Your task to perform on an android device: Open the calendar app, open the side menu, and click the "Day" option Image 0: 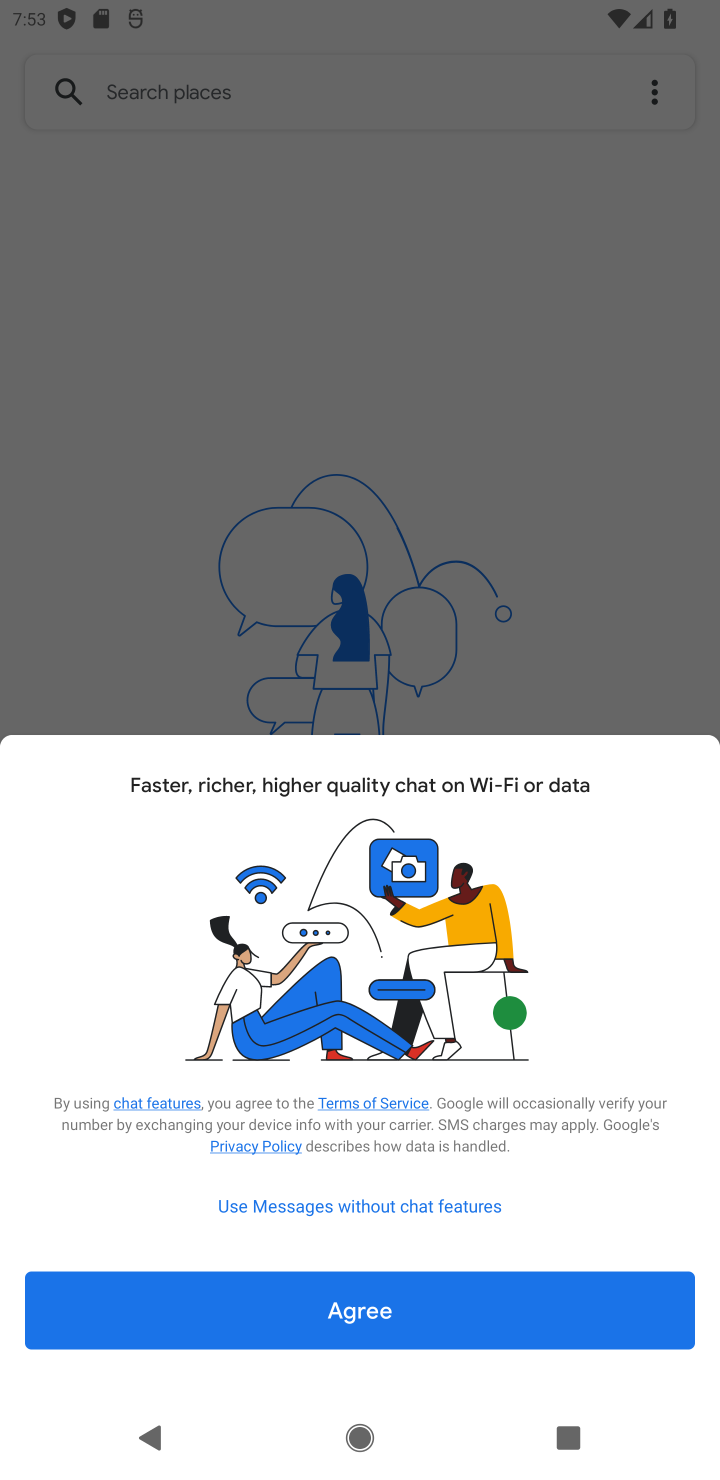
Step 0: press home button
Your task to perform on an android device: Open the calendar app, open the side menu, and click the "Day" option Image 1: 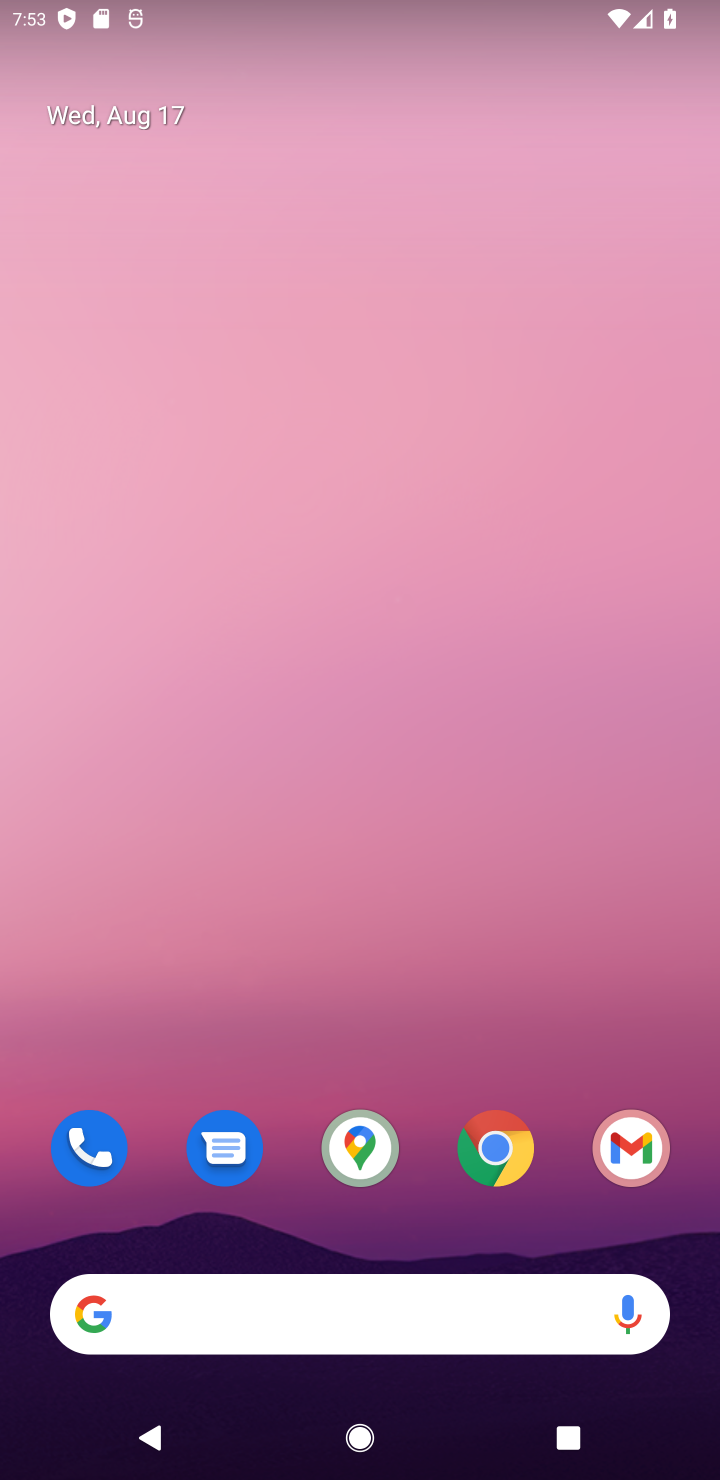
Step 1: drag from (394, 1218) to (389, 203)
Your task to perform on an android device: Open the calendar app, open the side menu, and click the "Day" option Image 2: 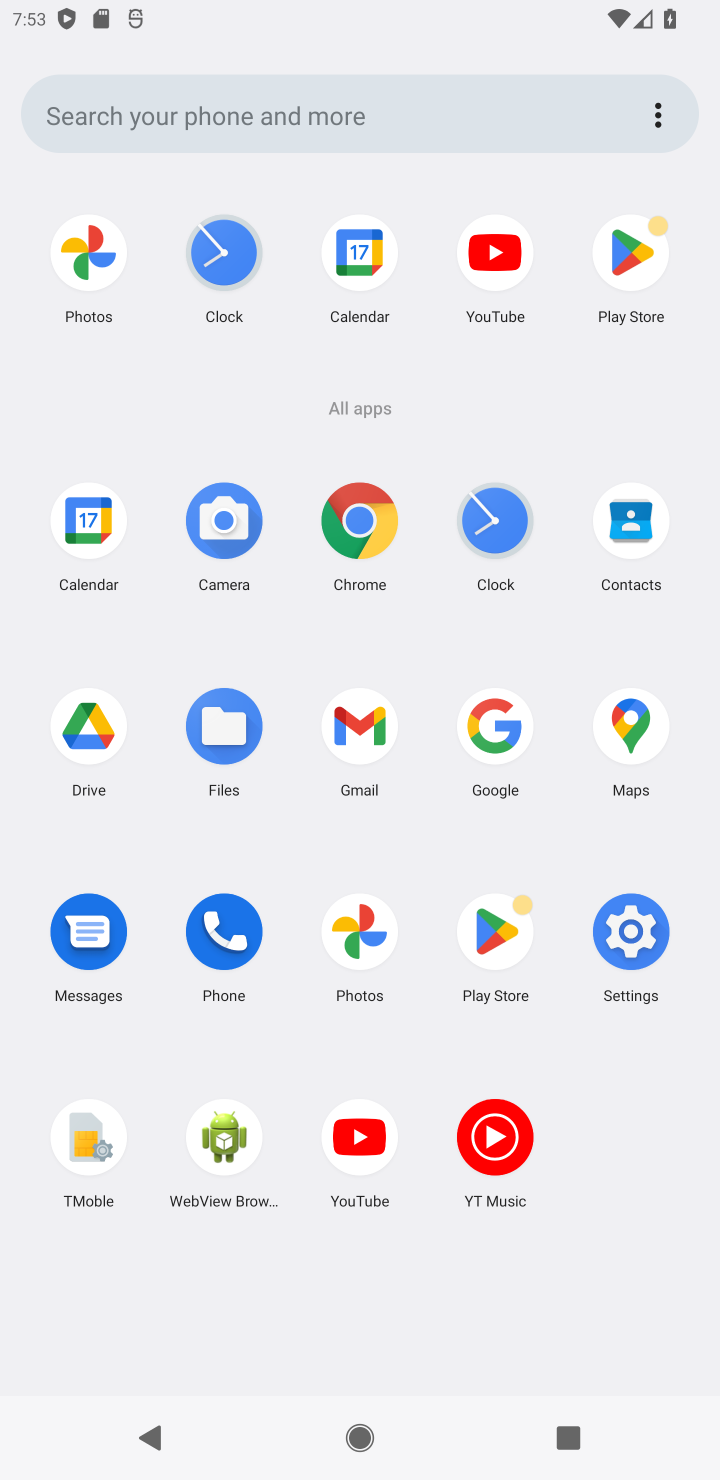
Step 2: click (86, 520)
Your task to perform on an android device: Open the calendar app, open the side menu, and click the "Day" option Image 3: 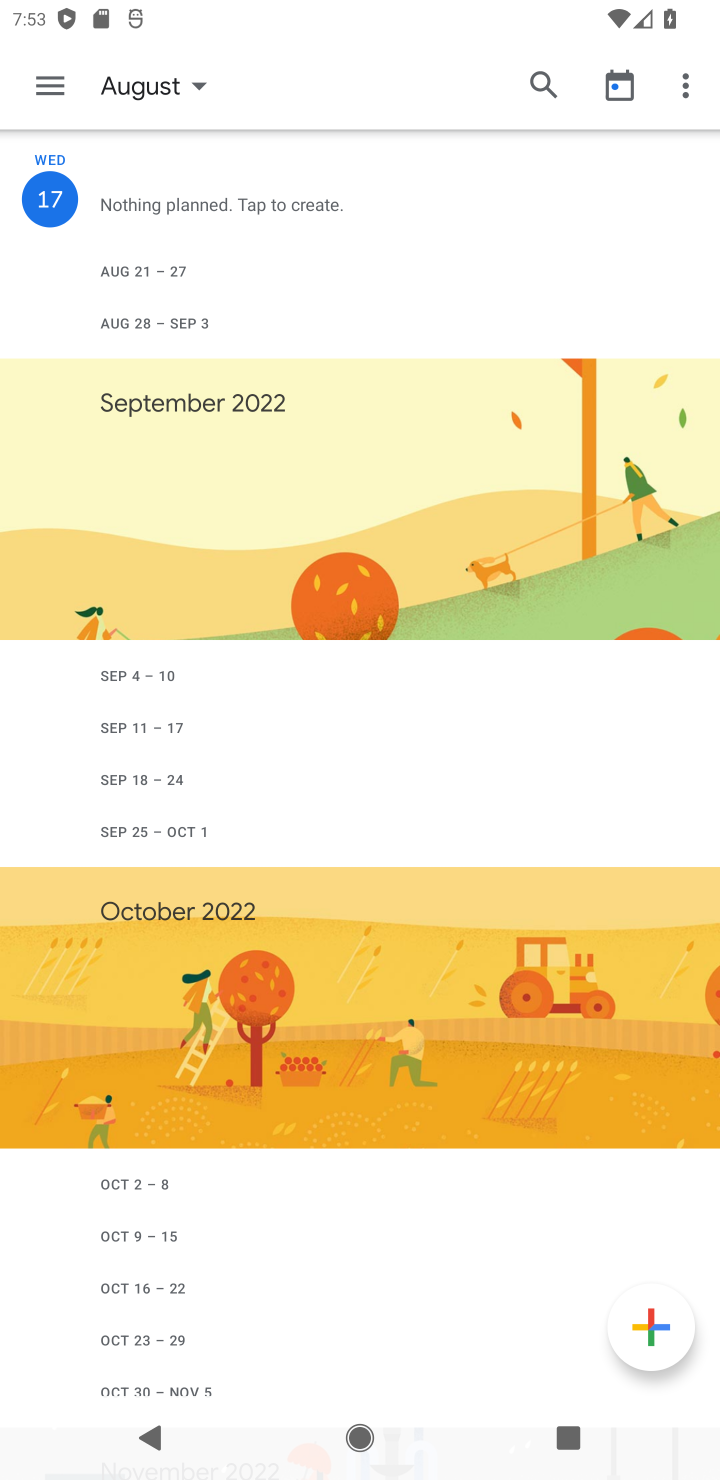
Step 3: click (43, 83)
Your task to perform on an android device: Open the calendar app, open the side menu, and click the "Day" option Image 4: 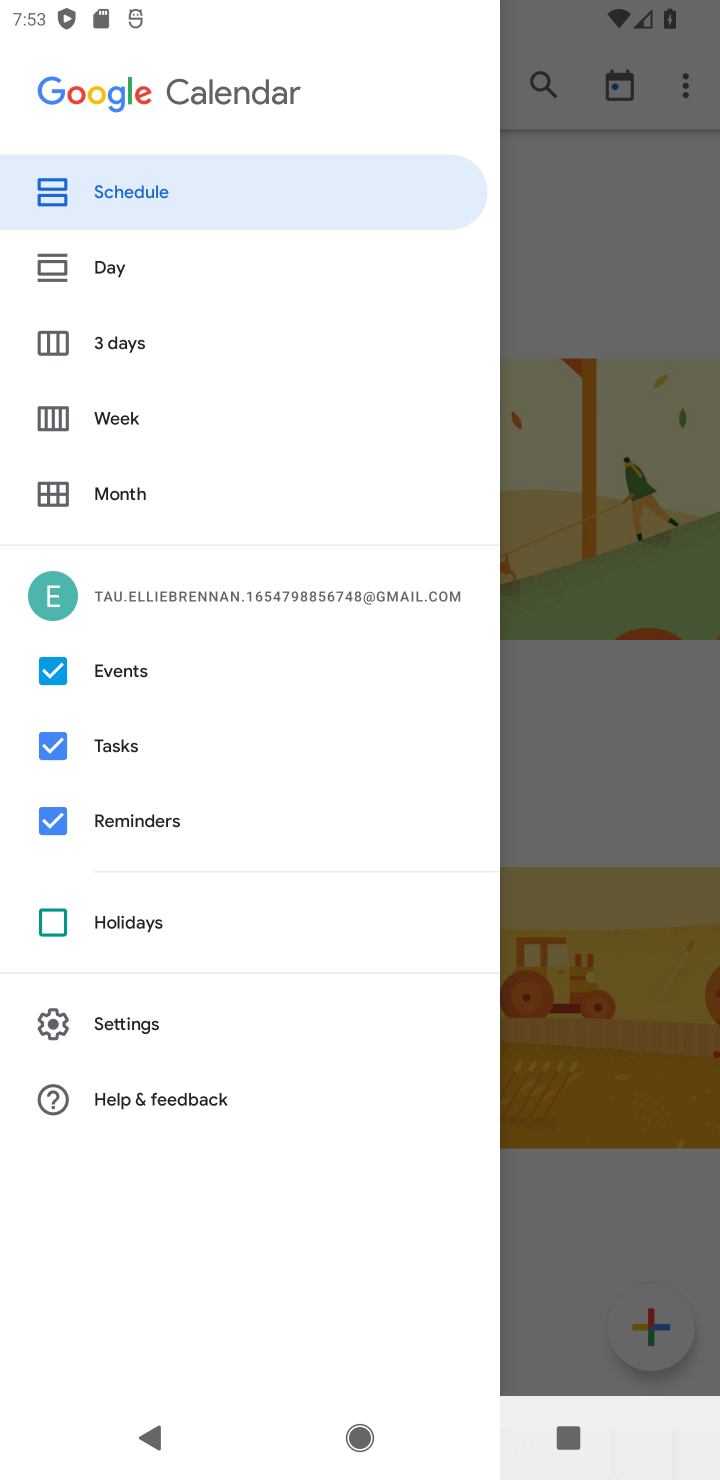
Step 4: click (136, 279)
Your task to perform on an android device: Open the calendar app, open the side menu, and click the "Day" option Image 5: 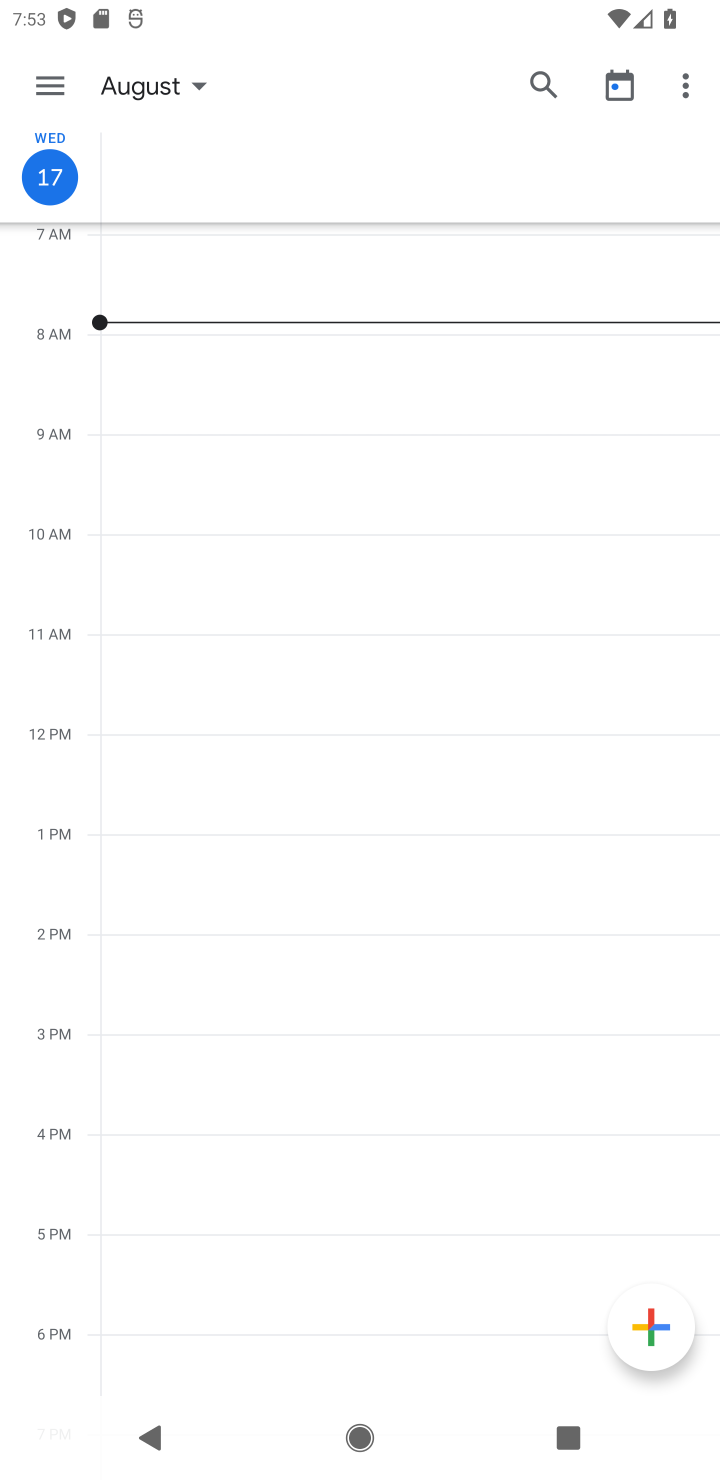
Step 5: task complete